Your task to perform on an android device: Is it going to rain this weekend? Image 0: 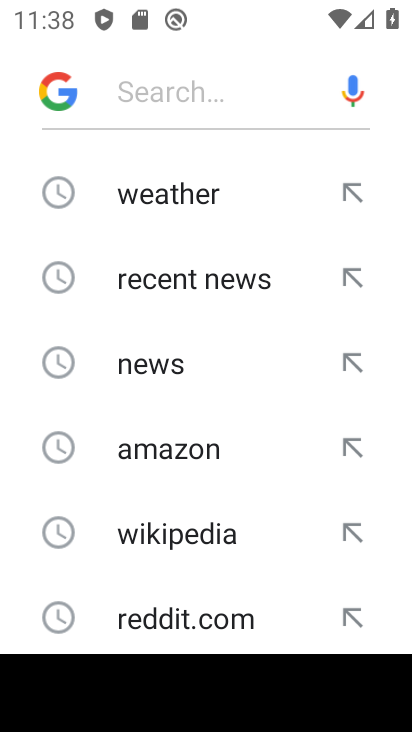
Step 0: press home button
Your task to perform on an android device: Is it going to rain this weekend? Image 1: 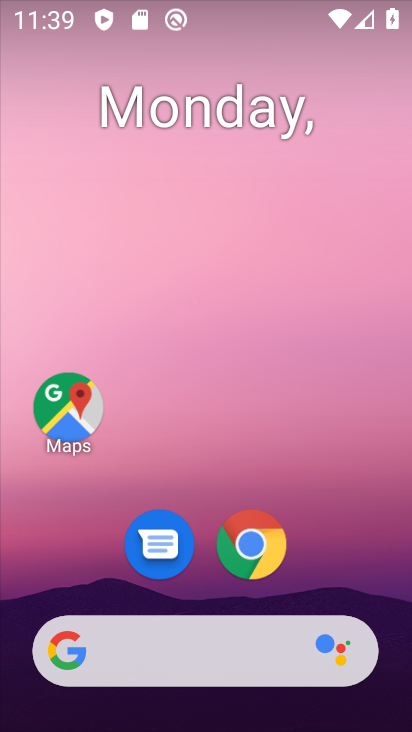
Step 1: click (166, 629)
Your task to perform on an android device: Is it going to rain this weekend? Image 2: 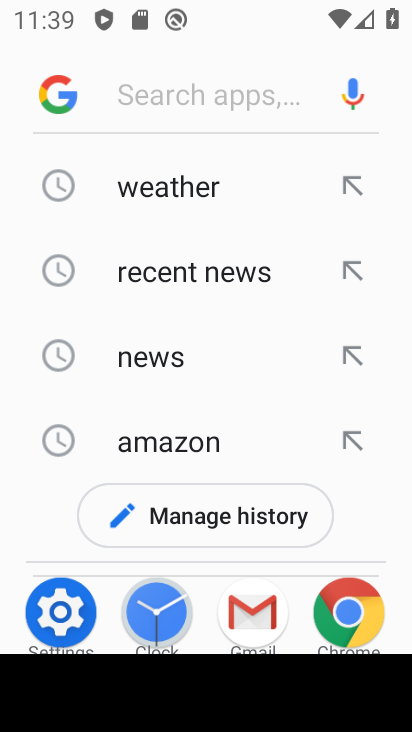
Step 2: click (277, 193)
Your task to perform on an android device: Is it going to rain this weekend? Image 3: 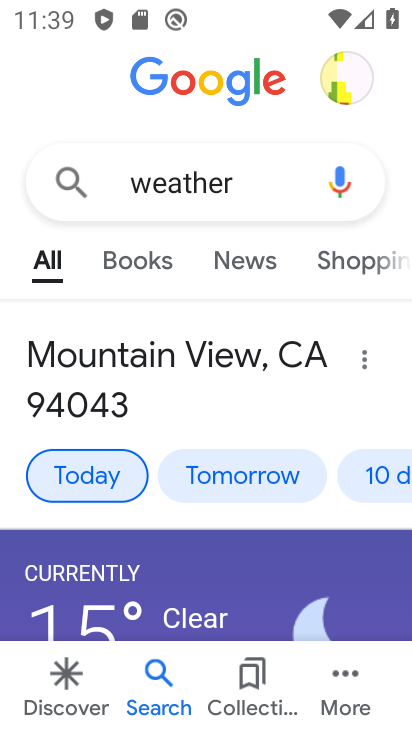
Step 3: click (393, 481)
Your task to perform on an android device: Is it going to rain this weekend? Image 4: 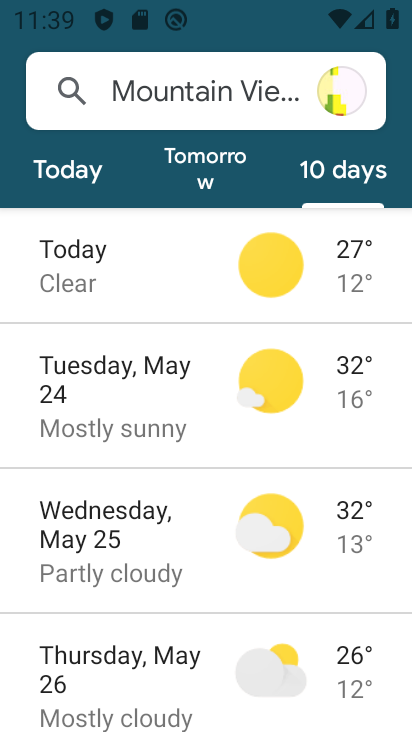
Step 4: task complete